Your task to perform on an android device: Open the map Image 0: 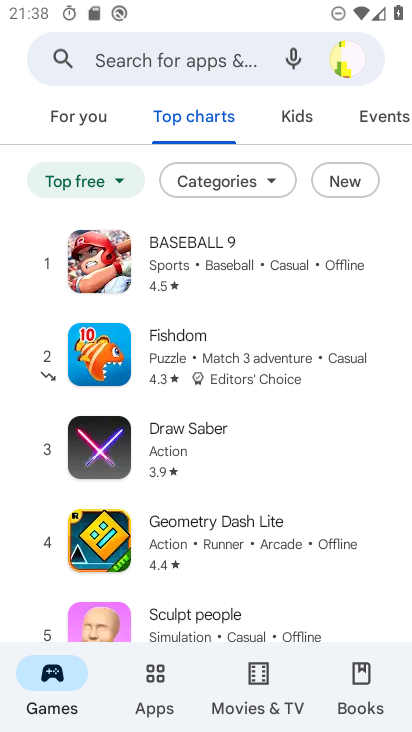
Step 0: press home button
Your task to perform on an android device: Open the map Image 1: 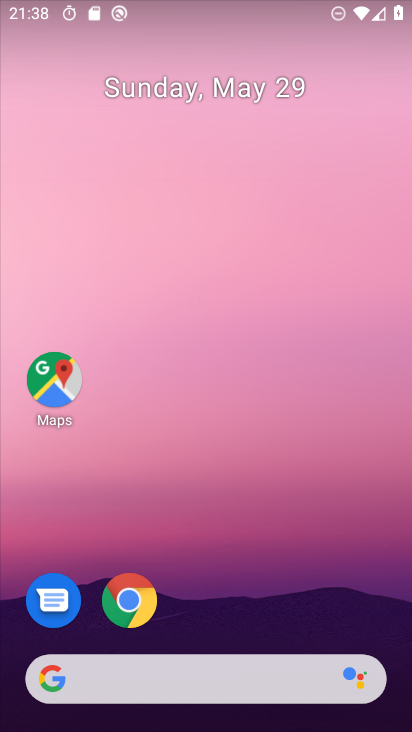
Step 1: drag from (344, 599) to (341, 140)
Your task to perform on an android device: Open the map Image 2: 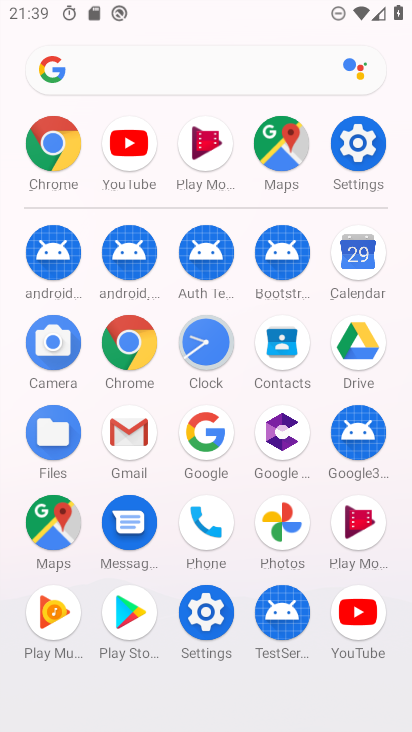
Step 2: click (60, 532)
Your task to perform on an android device: Open the map Image 3: 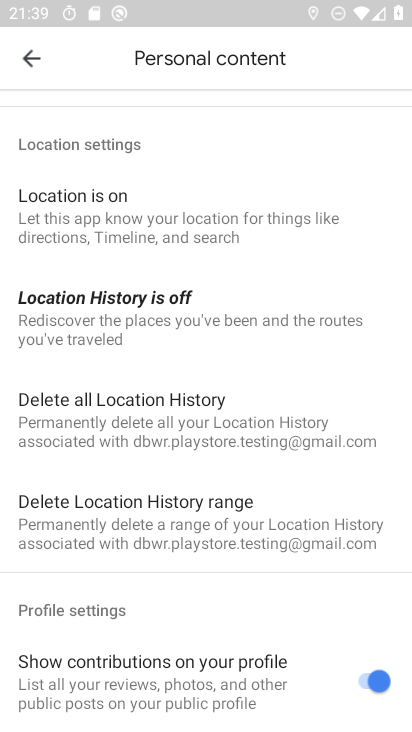
Step 3: task complete